Your task to perform on an android device: Show me productivity apps on the Play Store Image 0: 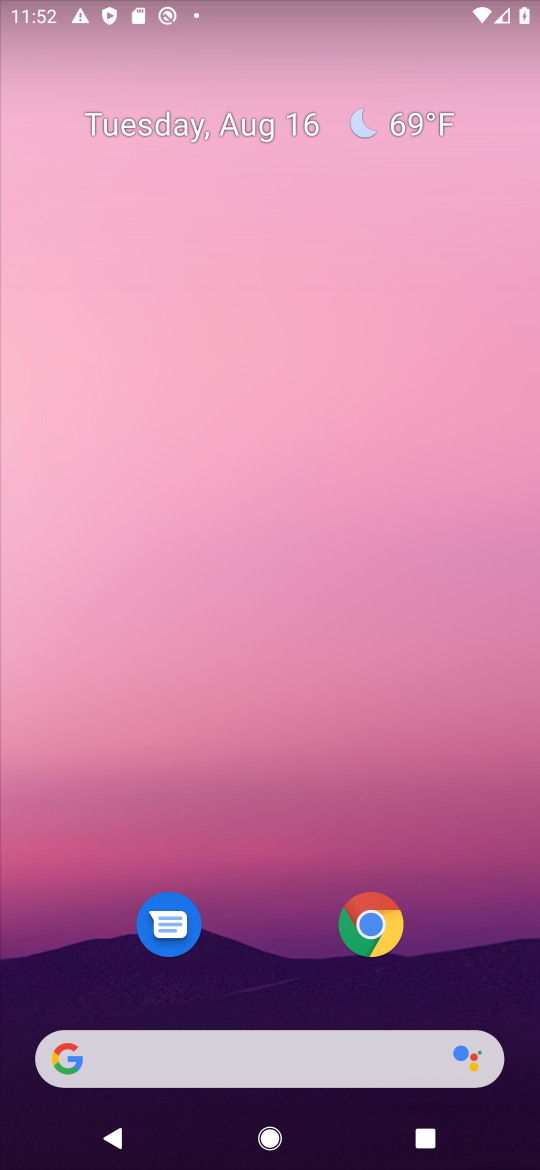
Step 0: drag from (264, 1007) to (190, 263)
Your task to perform on an android device: Show me productivity apps on the Play Store Image 1: 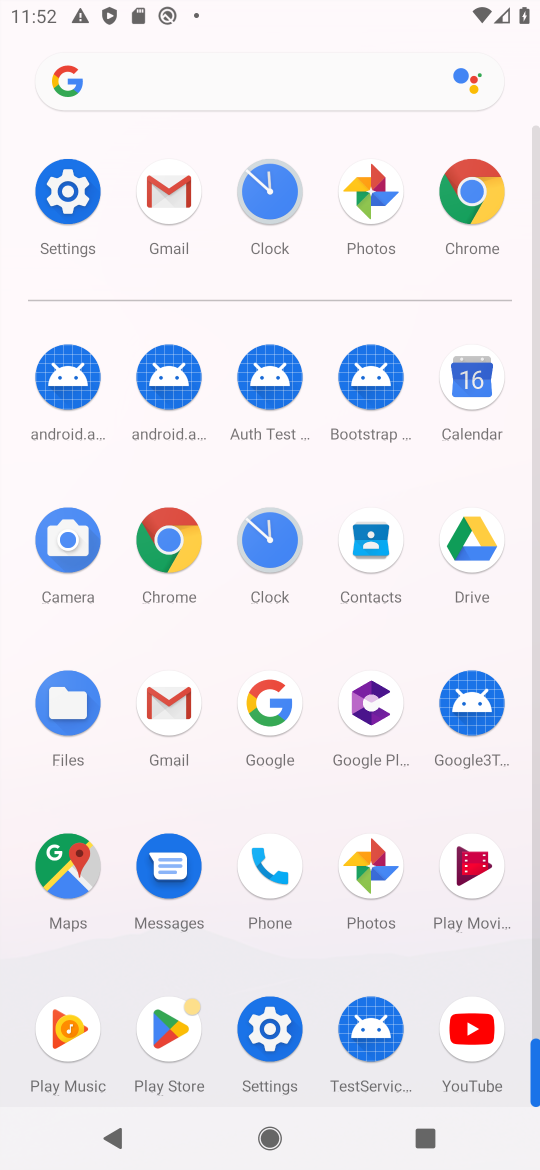
Step 1: click (159, 1024)
Your task to perform on an android device: Show me productivity apps on the Play Store Image 2: 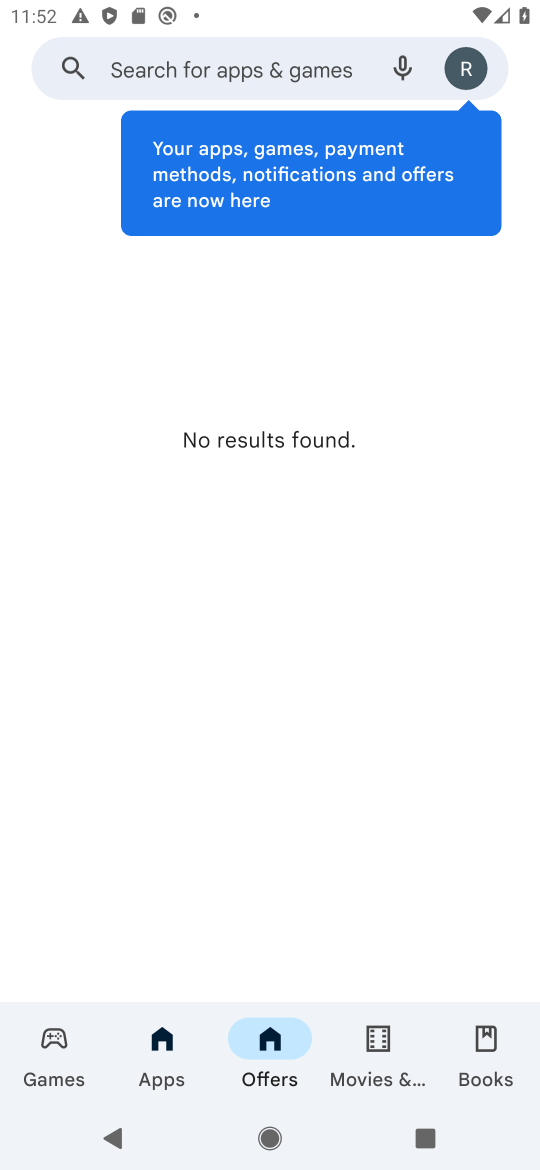
Step 2: click (159, 1024)
Your task to perform on an android device: Show me productivity apps on the Play Store Image 3: 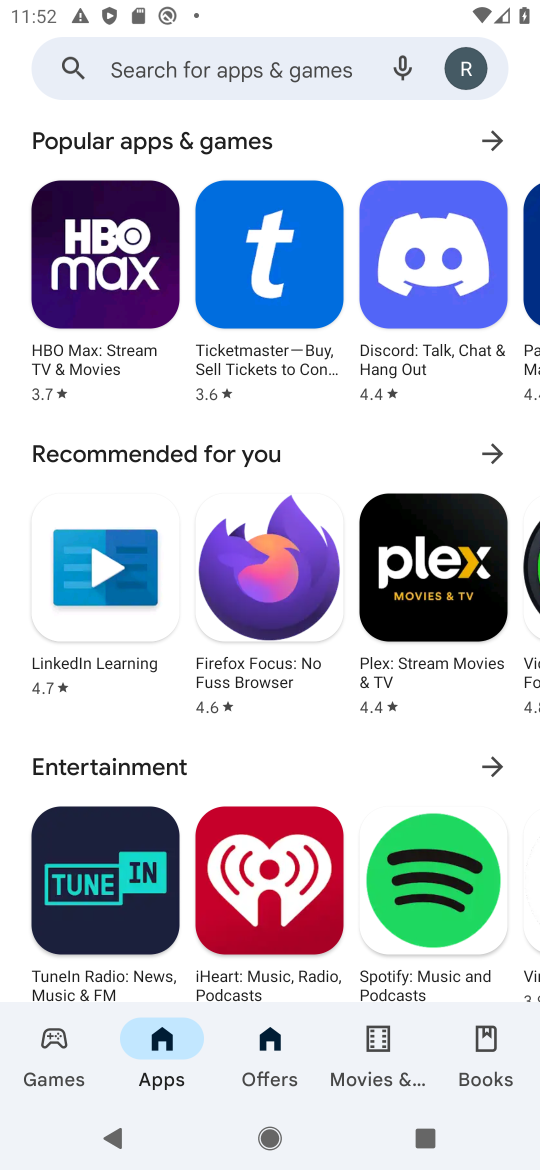
Step 3: drag from (204, 764) to (158, 356)
Your task to perform on an android device: Show me productivity apps on the Play Store Image 4: 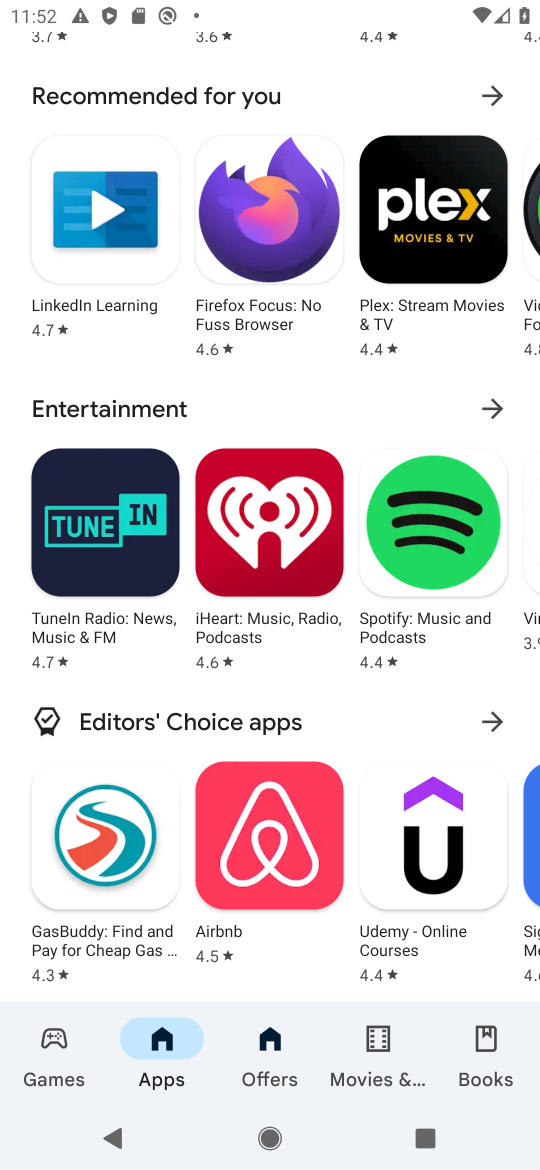
Step 4: drag from (339, 724) to (153, 289)
Your task to perform on an android device: Show me productivity apps on the Play Store Image 5: 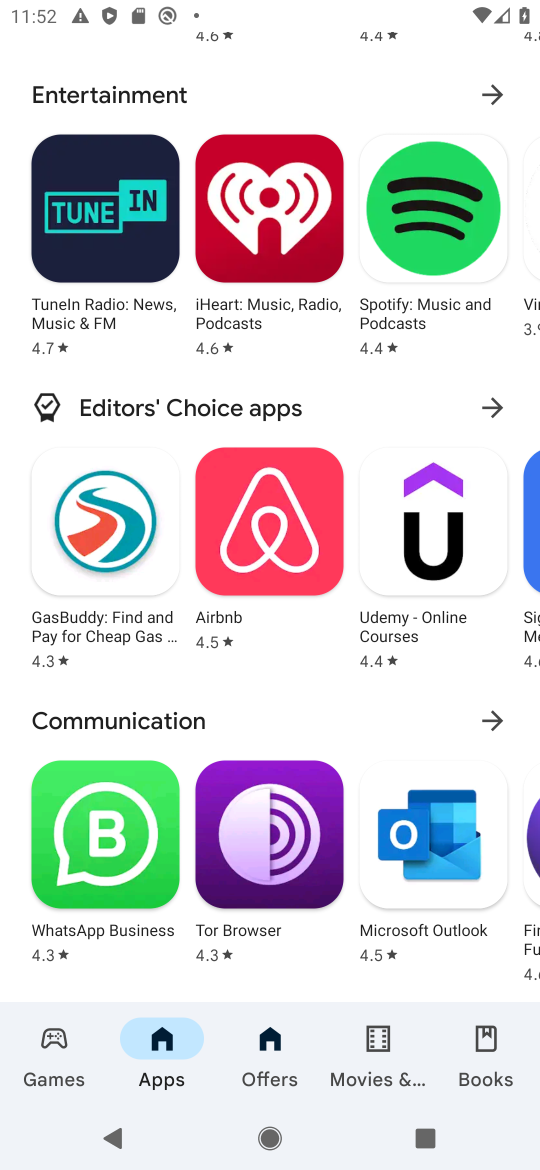
Step 5: drag from (267, 753) to (24, 146)
Your task to perform on an android device: Show me productivity apps on the Play Store Image 6: 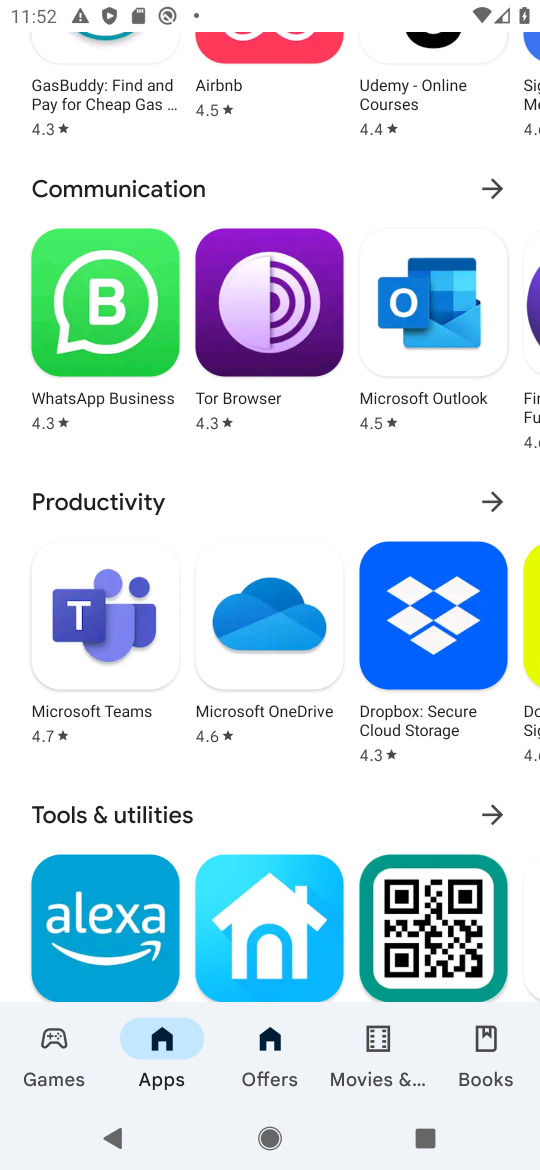
Step 6: drag from (241, 818) to (26, 122)
Your task to perform on an android device: Show me productivity apps on the Play Store Image 7: 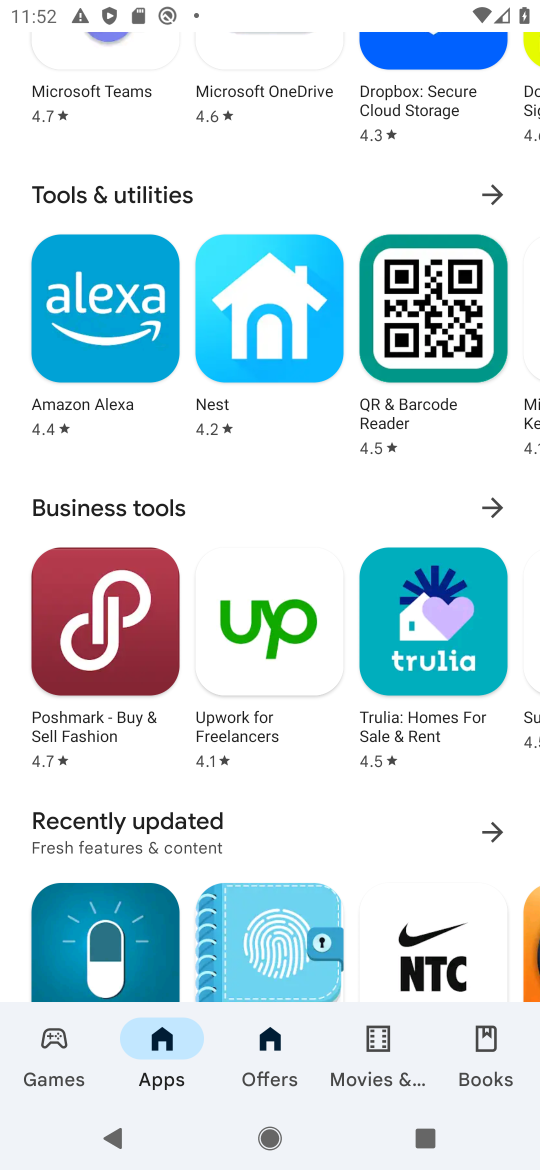
Step 7: drag from (212, 197) to (411, 638)
Your task to perform on an android device: Show me productivity apps on the Play Store Image 8: 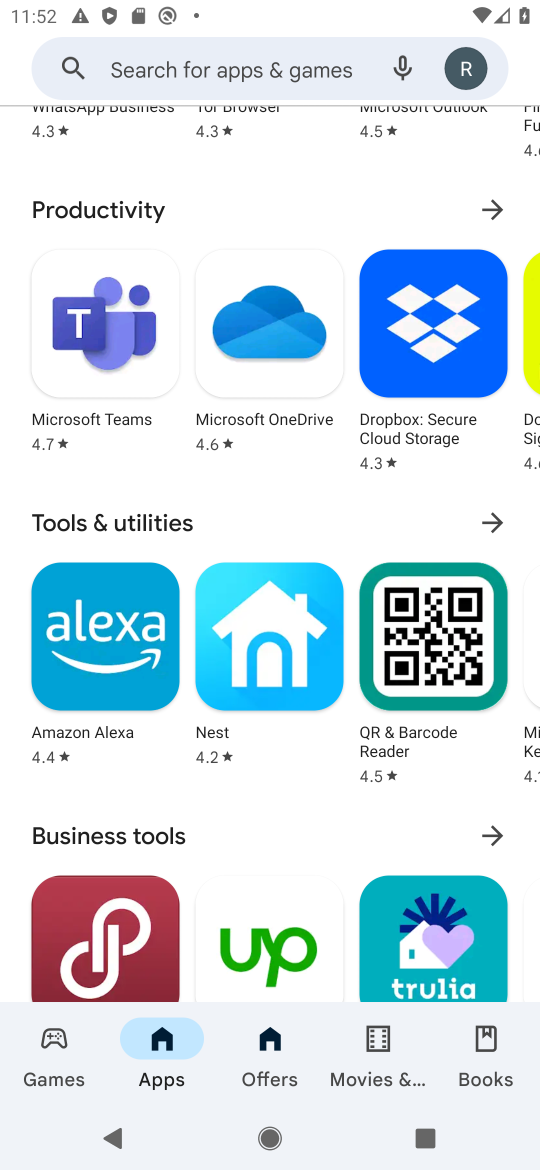
Step 8: click (496, 210)
Your task to perform on an android device: Show me productivity apps on the Play Store Image 9: 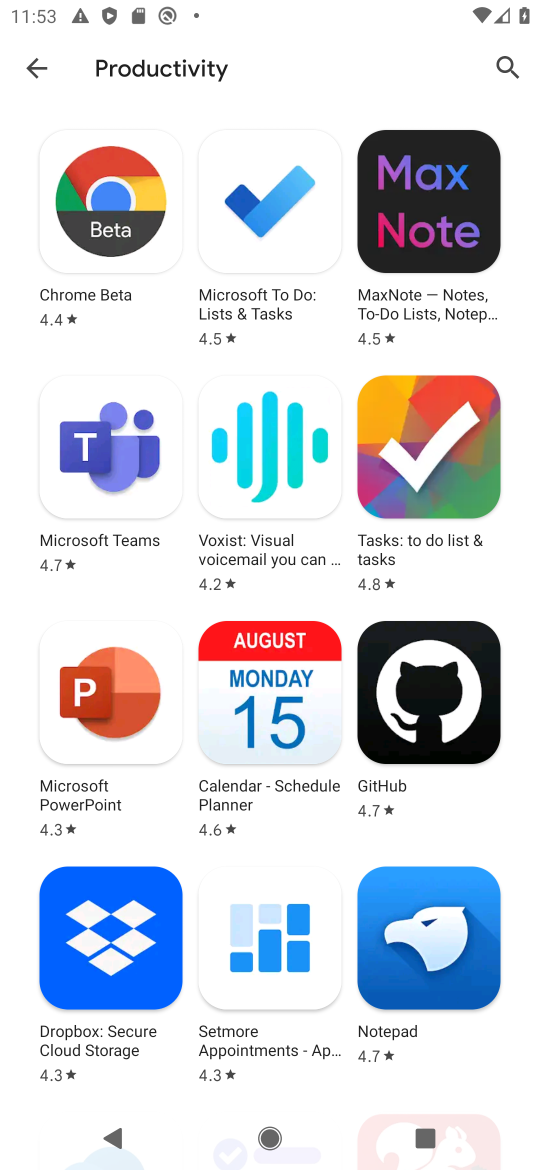
Step 9: task complete